Your task to perform on an android device: set the timer Image 0: 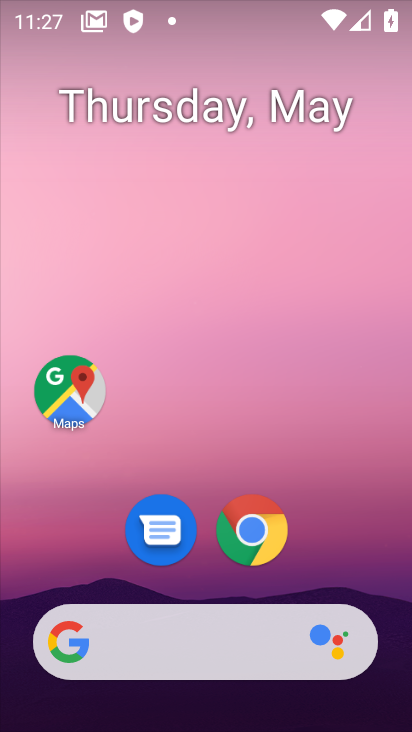
Step 0: drag from (398, 634) to (401, 305)
Your task to perform on an android device: set the timer Image 1: 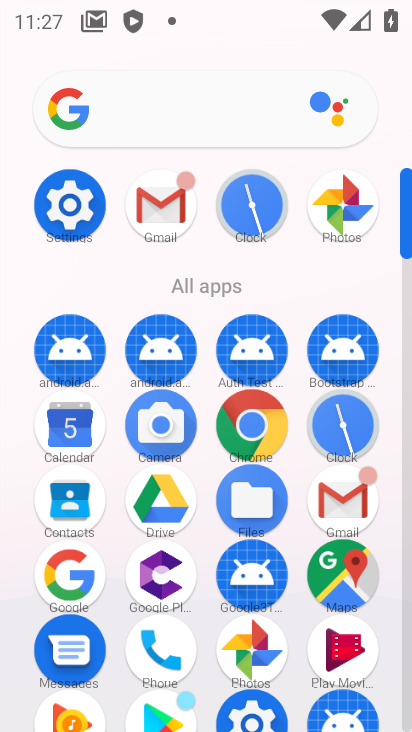
Step 1: click (343, 424)
Your task to perform on an android device: set the timer Image 2: 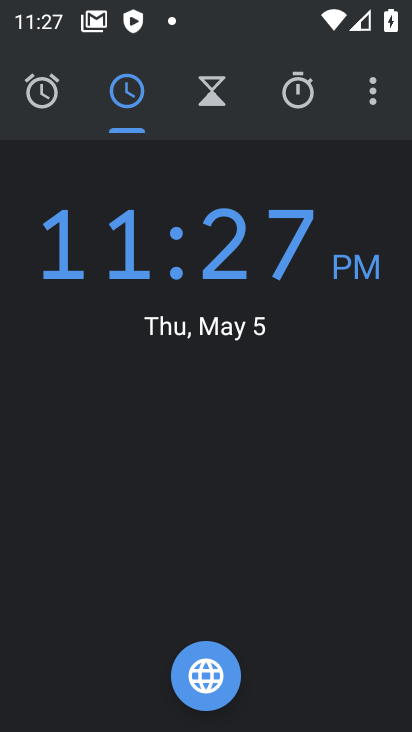
Step 2: click (304, 85)
Your task to perform on an android device: set the timer Image 3: 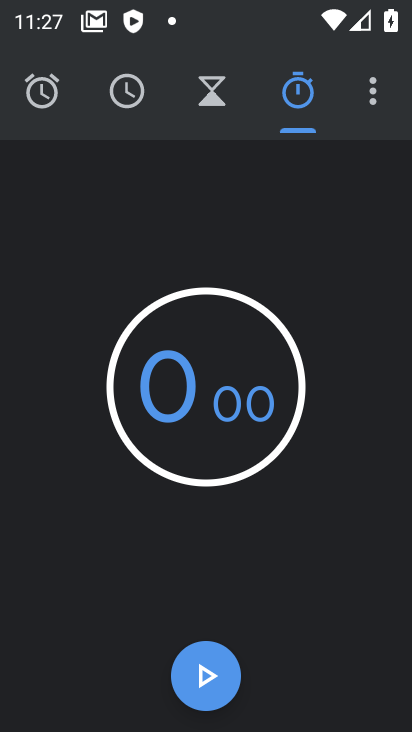
Step 3: click (223, 672)
Your task to perform on an android device: set the timer Image 4: 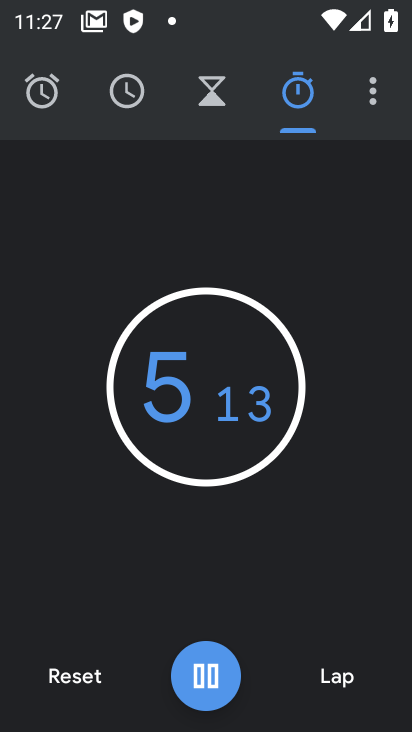
Step 4: task complete